Your task to perform on an android device: open device folders in google photos Image 0: 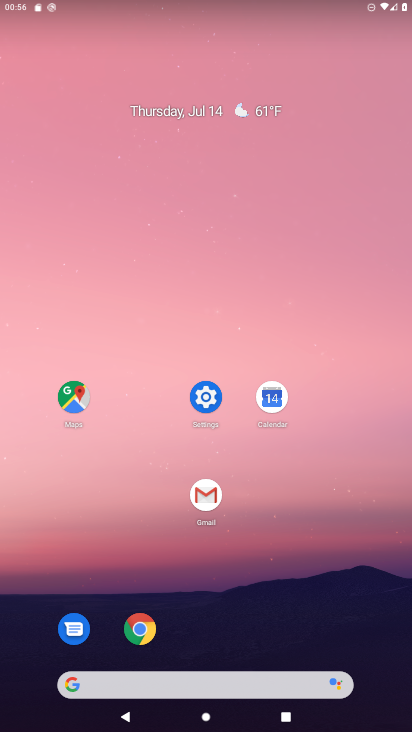
Step 0: drag from (378, 673) to (255, 25)
Your task to perform on an android device: open device folders in google photos Image 1: 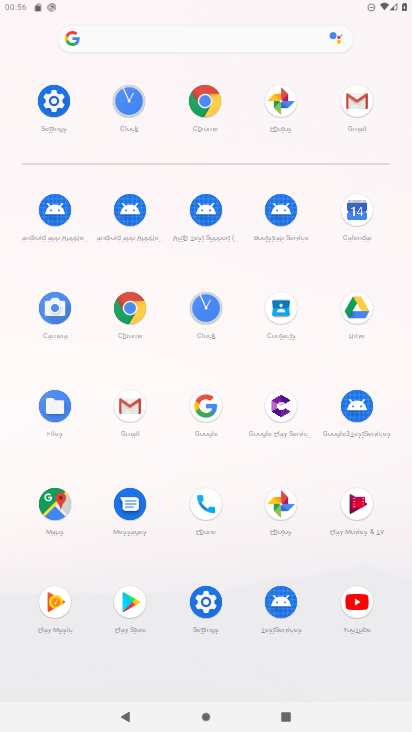
Step 1: click (275, 510)
Your task to perform on an android device: open device folders in google photos Image 2: 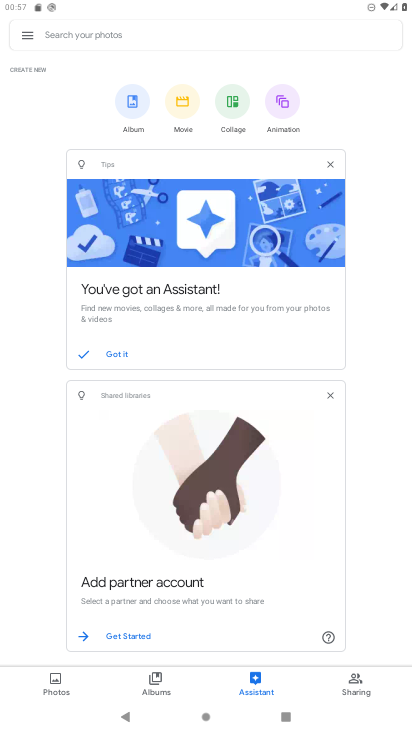
Step 2: click (22, 34)
Your task to perform on an android device: open device folders in google photos Image 3: 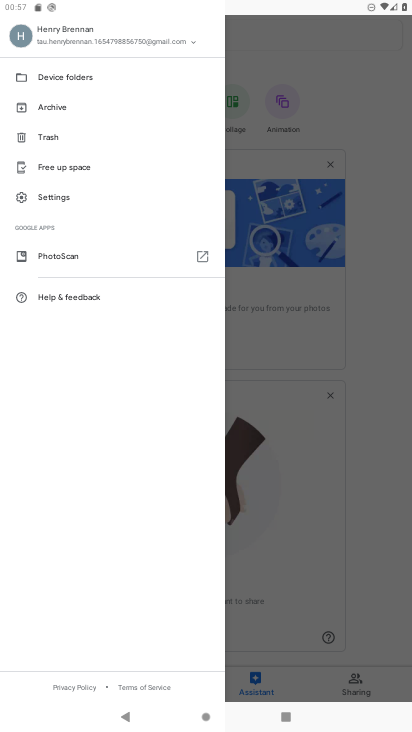
Step 3: click (63, 74)
Your task to perform on an android device: open device folders in google photos Image 4: 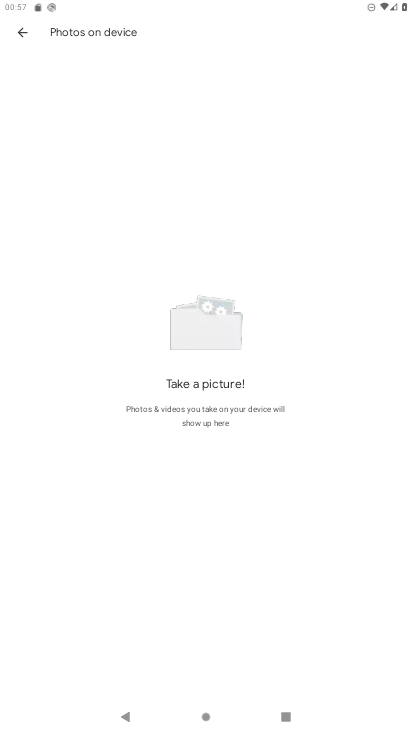
Step 4: task complete